Your task to perform on an android device: Open calendar and show me the first week of next month Image 0: 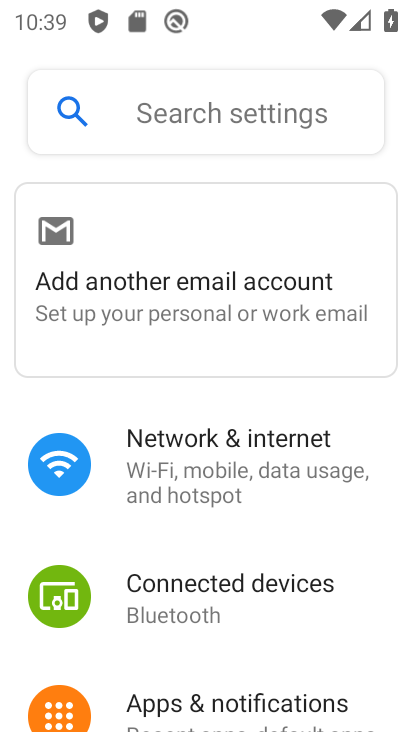
Step 0: press home button
Your task to perform on an android device: Open calendar and show me the first week of next month Image 1: 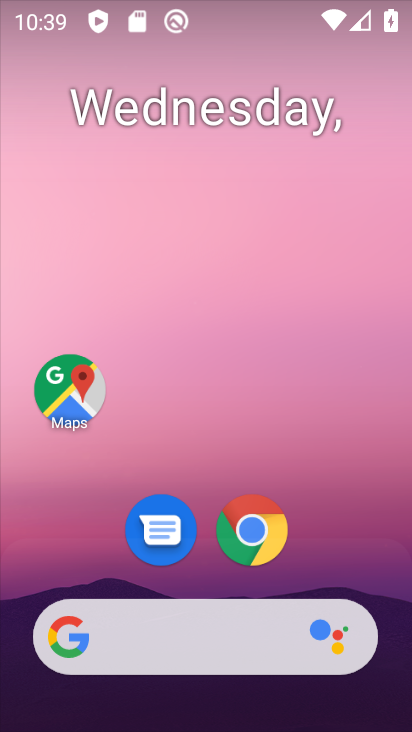
Step 1: drag from (233, 314) to (234, 12)
Your task to perform on an android device: Open calendar and show me the first week of next month Image 2: 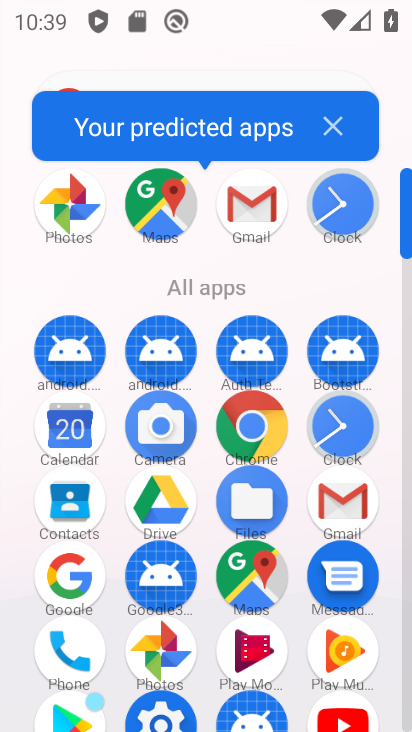
Step 2: click (86, 435)
Your task to perform on an android device: Open calendar and show me the first week of next month Image 3: 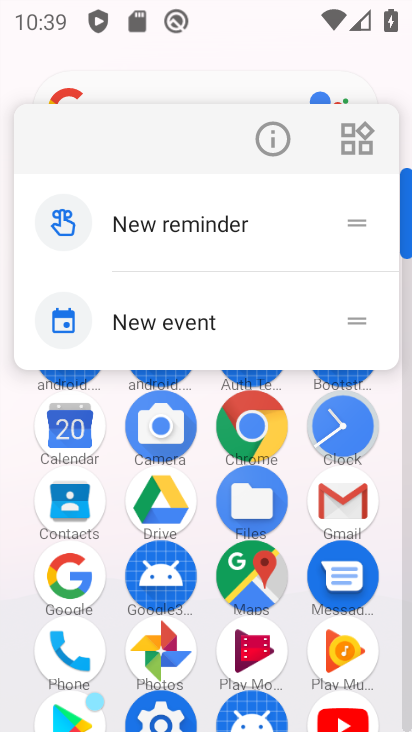
Step 3: click (86, 435)
Your task to perform on an android device: Open calendar and show me the first week of next month Image 4: 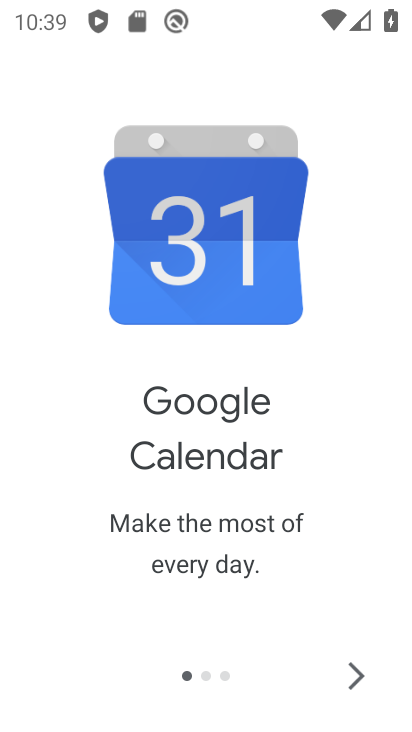
Step 4: click (353, 673)
Your task to perform on an android device: Open calendar and show me the first week of next month Image 5: 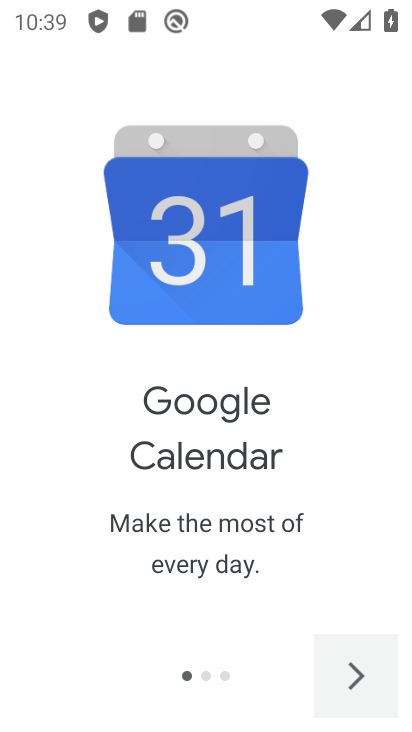
Step 5: click (353, 673)
Your task to perform on an android device: Open calendar and show me the first week of next month Image 6: 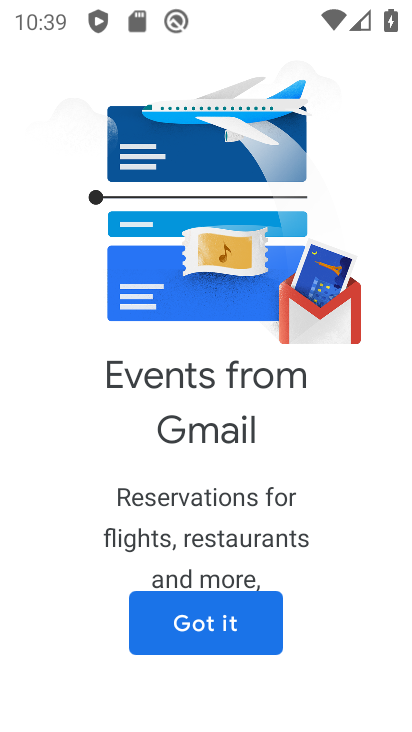
Step 6: click (222, 634)
Your task to perform on an android device: Open calendar and show me the first week of next month Image 7: 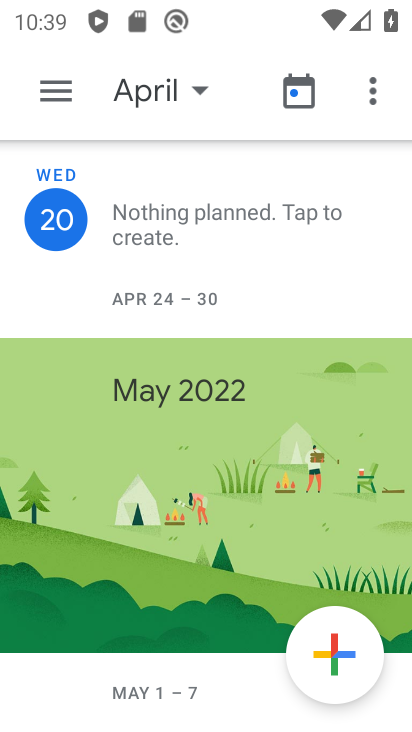
Step 7: click (141, 92)
Your task to perform on an android device: Open calendar and show me the first week of next month Image 8: 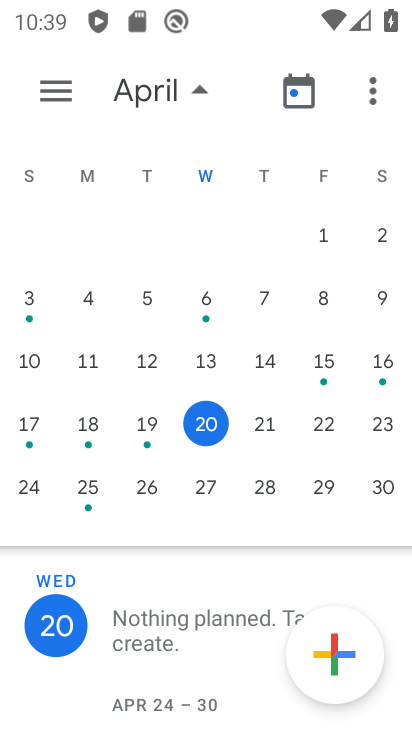
Step 8: drag from (385, 317) to (51, 428)
Your task to perform on an android device: Open calendar and show me the first week of next month Image 9: 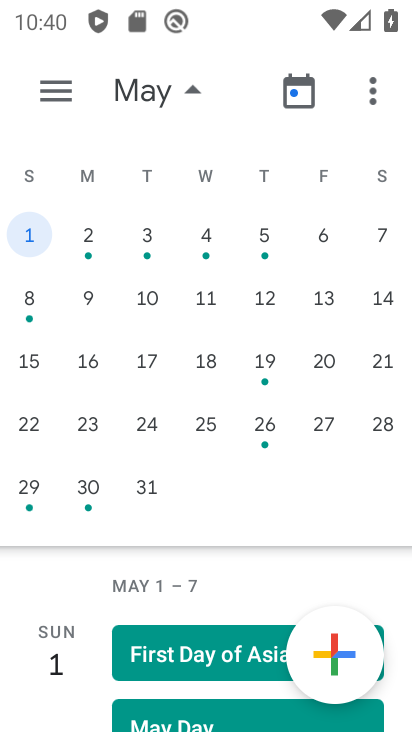
Step 9: drag from (382, 314) to (328, 290)
Your task to perform on an android device: Open calendar and show me the first week of next month Image 10: 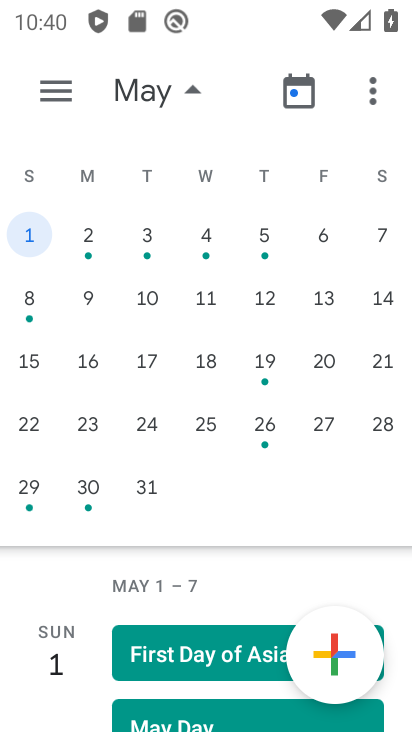
Step 10: click (33, 237)
Your task to perform on an android device: Open calendar and show me the first week of next month Image 11: 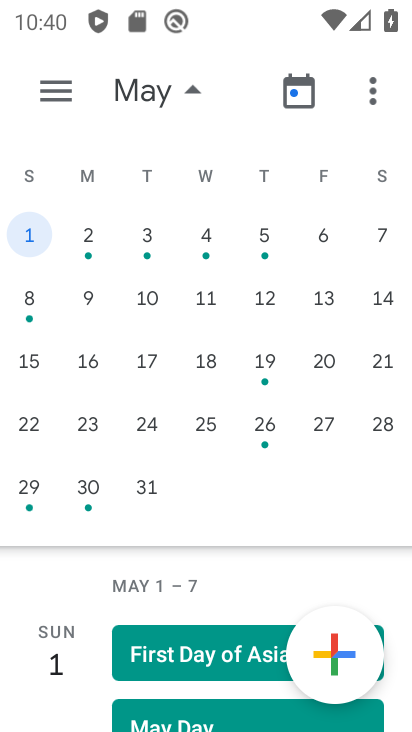
Step 11: click (45, 229)
Your task to perform on an android device: Open calendar and show me the first week of next month Image 12: 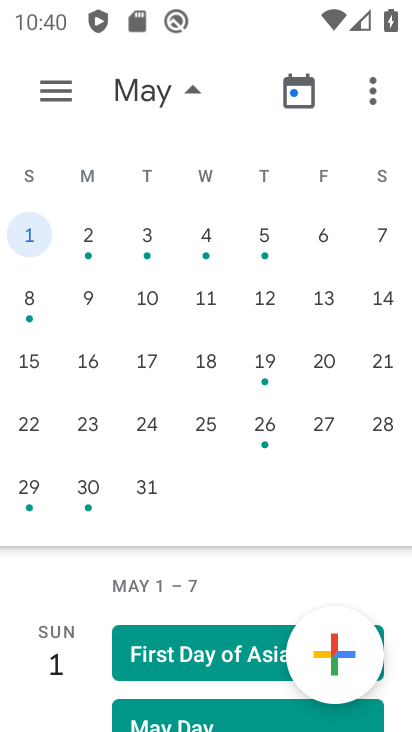
Step 12: task complete